Your task to perform on an android device: uninstall "Google News" Image 0: 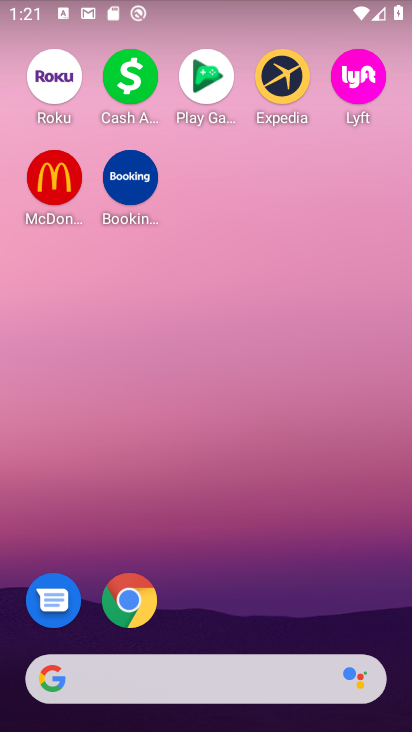
Step 0: drag from (280, 624) to (272, 24)
Your task to perform on an android device: uninstall "Google News" Image 1: 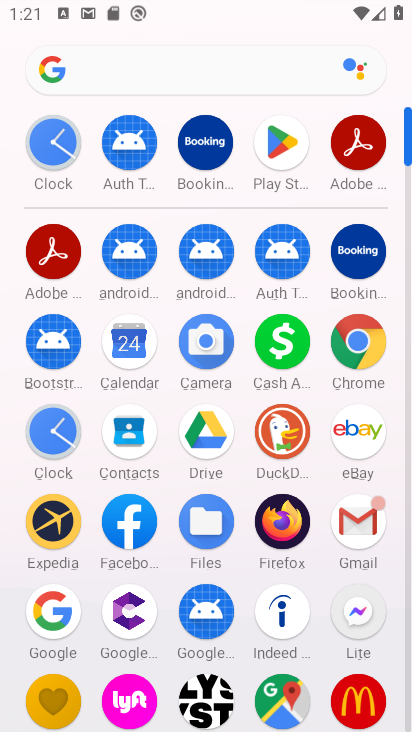
Step 1: click (284, 139)
Your task to perform on an android device: uninstall "Google News" Image 2: 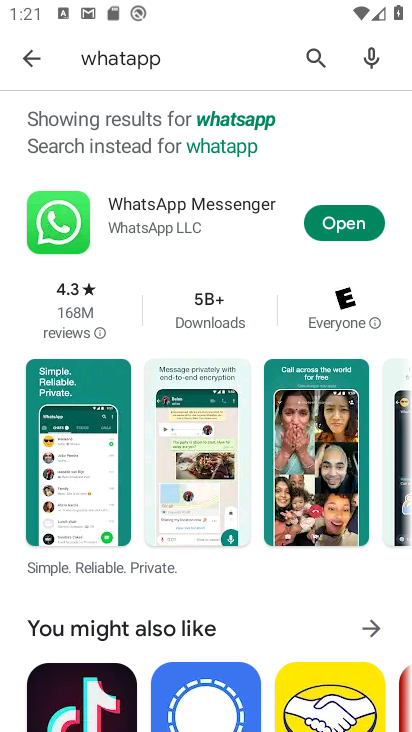
Step 2: click (326, 60)
Your task to perform on an android device: uninstall "Google News" Image 3: 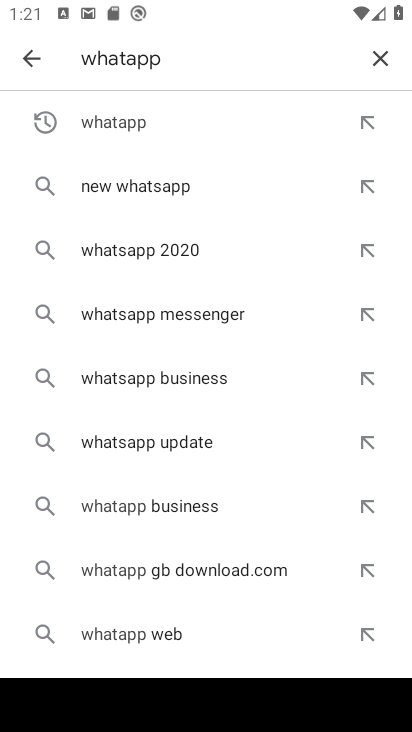
Step 3: click (371, 63)
Your task to perform on an android device: uninstall "Google News" Image 4: 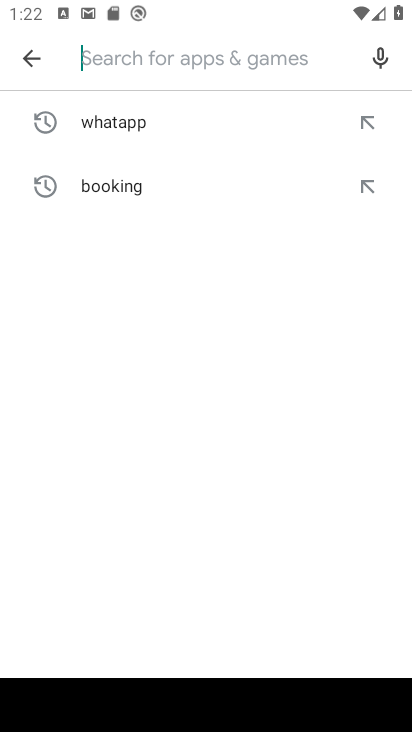
Step 4: type "google news"
Your task to perform on an android device: uninstall "Google News" Image 5: 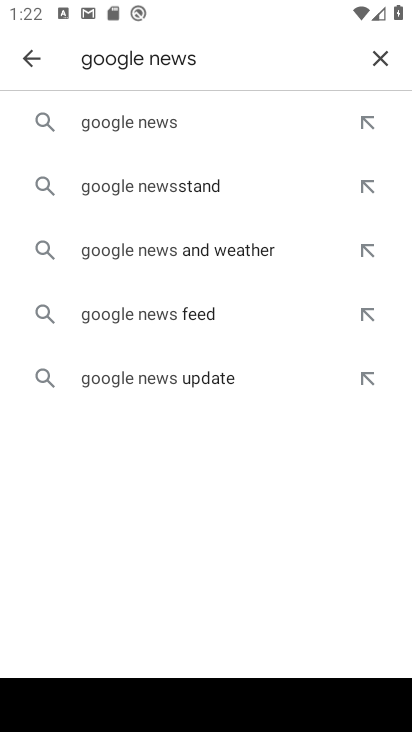
Step 5: click (260, 135)
Your task to perform on an android device: uninstall "Google News" Image 6: 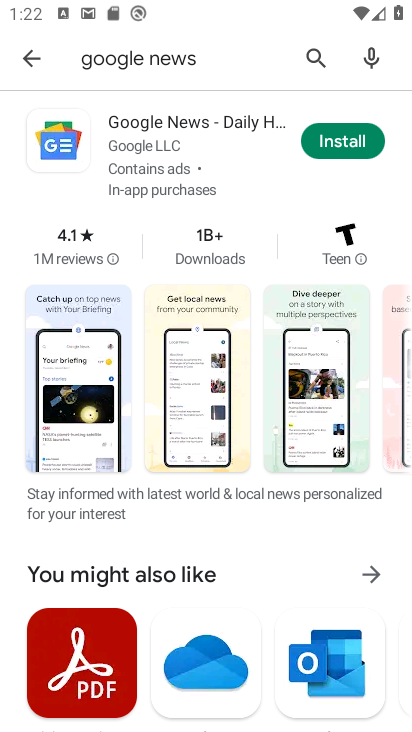
Step 6: click (333, 134)
Your task to perform on an android device: uninstall "Google News" Image 7: 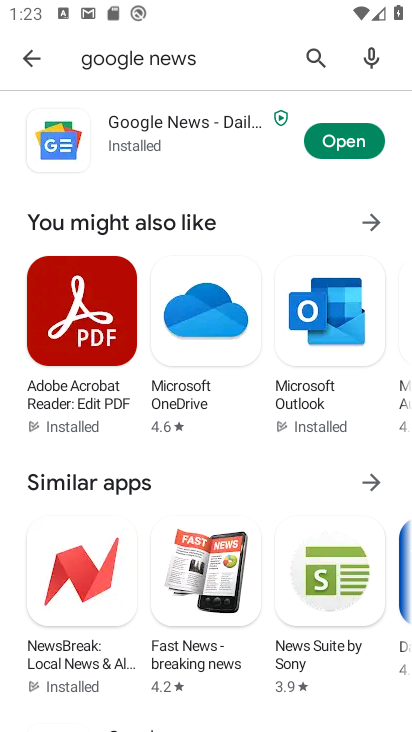
Step 7: click (314, 51)
Your task to perform on an android device: uninstall "Google News" Image 8: 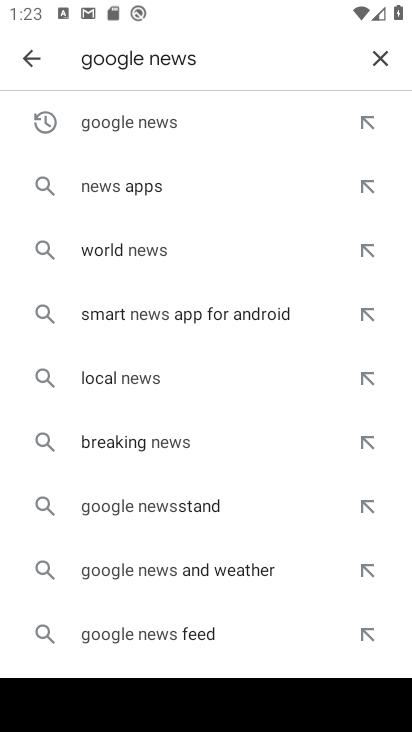
Step 8: task complete